Your task to perform on an android device: Go to Amazon Image 0: 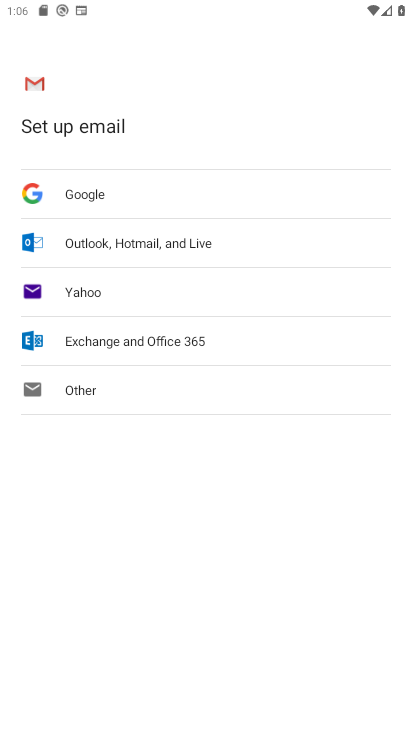
Step 0: press home button
Your task to perform on an android device: Go to Amazon Image 1: 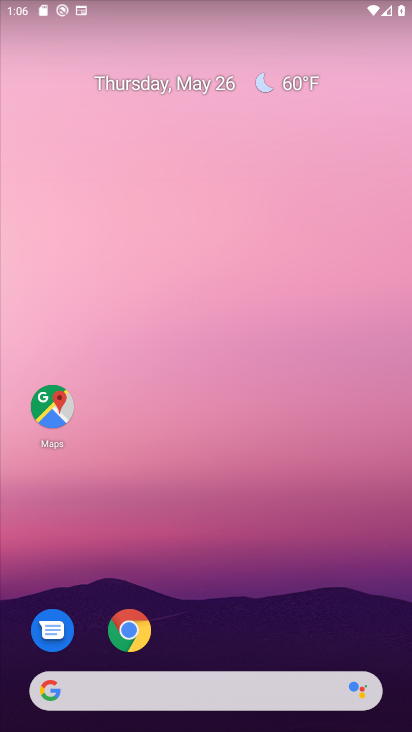
Step 1: drag from (374, 634) to (332, 182)
Your task to perform on an android device: Go to Amazon Image 2: 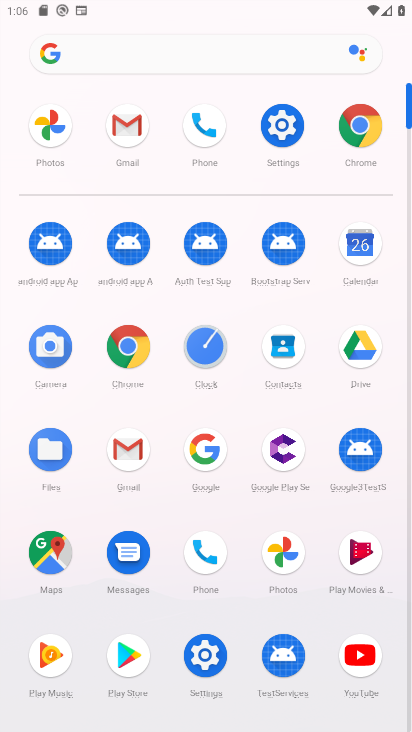
Step 2: click (358, 132)
Your task to perform on an android device: Go to Amazon Image 3: 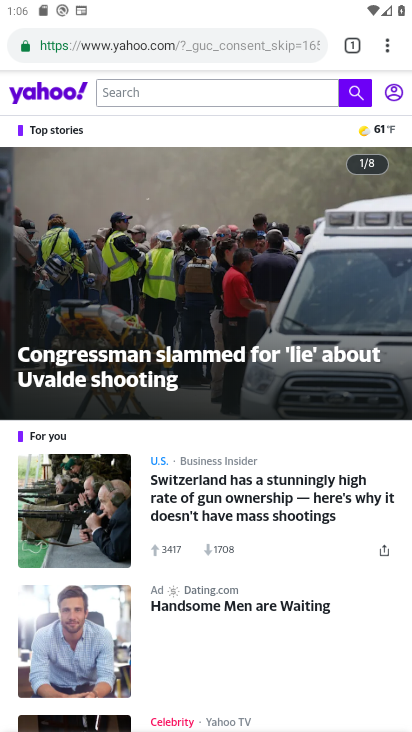
Step 3: click (199, 53)
Your task to perform on an android device: Go to Amazon Image 4: 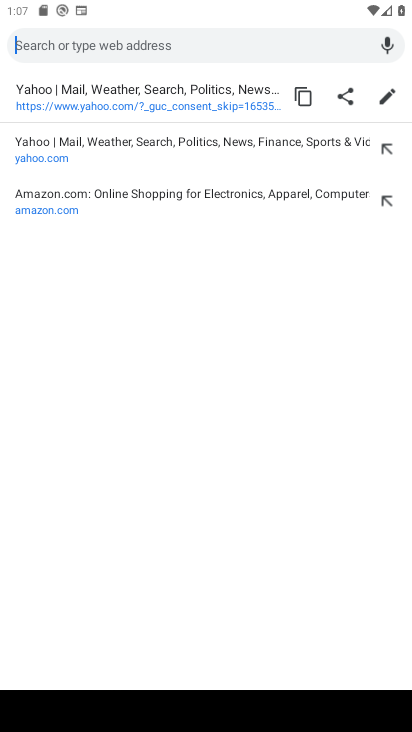
Step 4: click (130, 201)
Your task to perform on an android device: Go to Amazon Image 5: 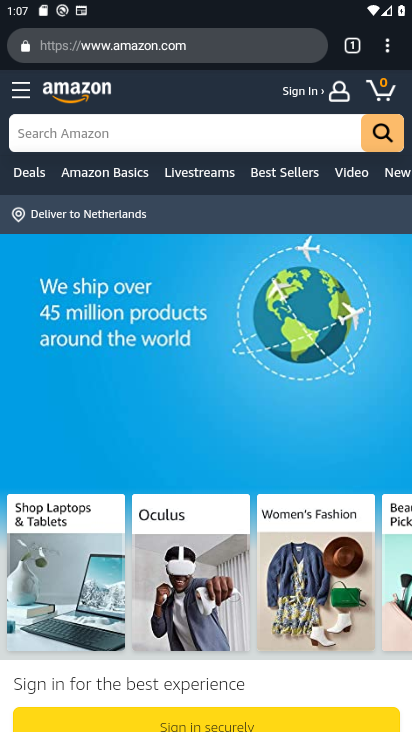
Step 5: task complete